Your task to perform on an android device: Set the phone to "Do not disturb". Image 0: 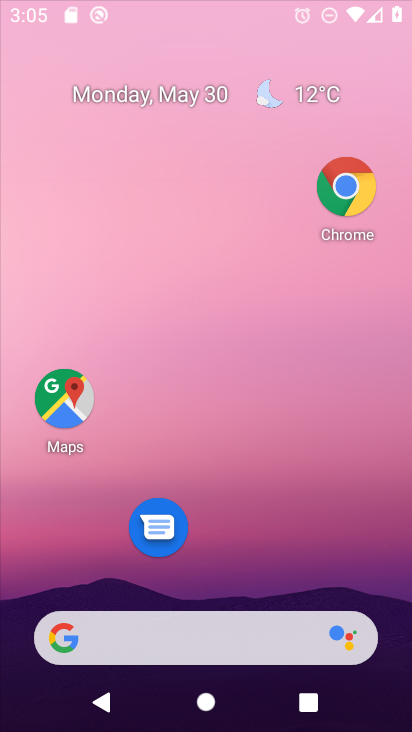
Step 0: drag from (230, 231) to (259, 35)
Your task to perform on an android device: Set the phone to "Do not disturb". Image 1: 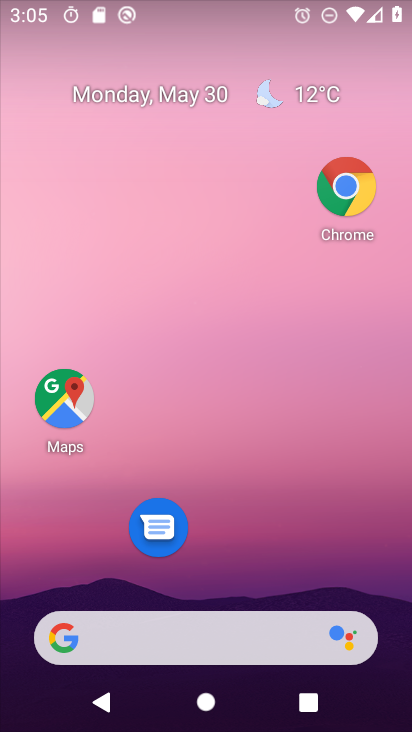
Step 1: drag from (245, 557) to (298, 104)
Your task to perform on an android device: Set the phone to "Do not disturb". Image 2: 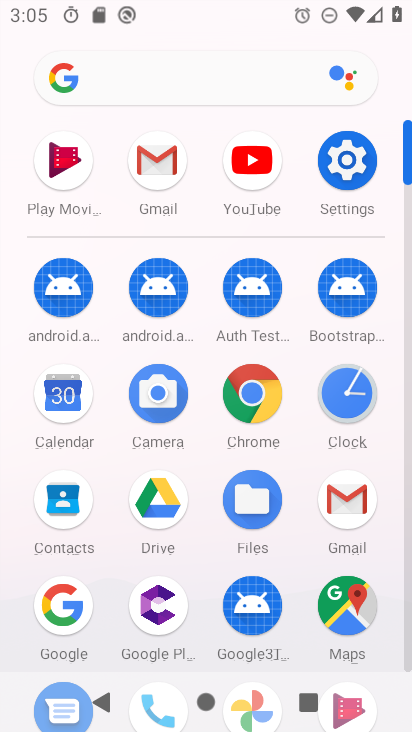
Step 2: click (338, 165)
Your task to perform on an android device: Set the phone to "Do not disturb". Image 3: 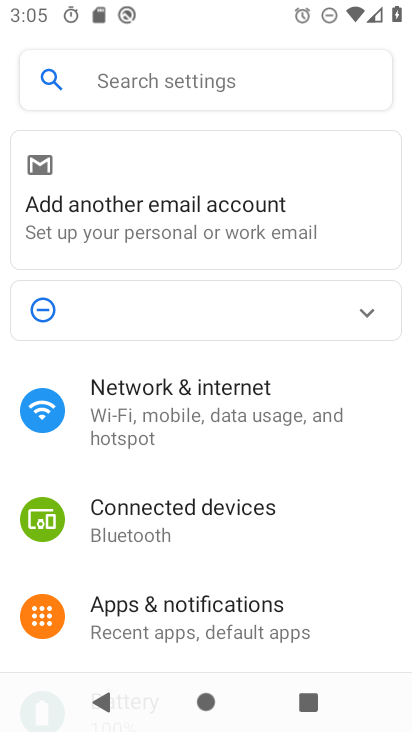
Step 3: drag from (239, 575) to (278, 186)
Your task to perform on an android device: Set the phone to "Do not disturb". Image 4: 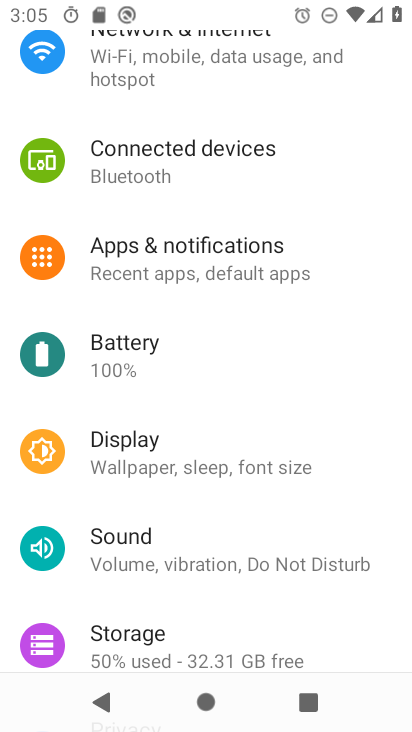
Step 4: drag from (249, 144) to (256, 390)
Your task to perform on an android device: Set the phone to "Do not disturb". Image 5: 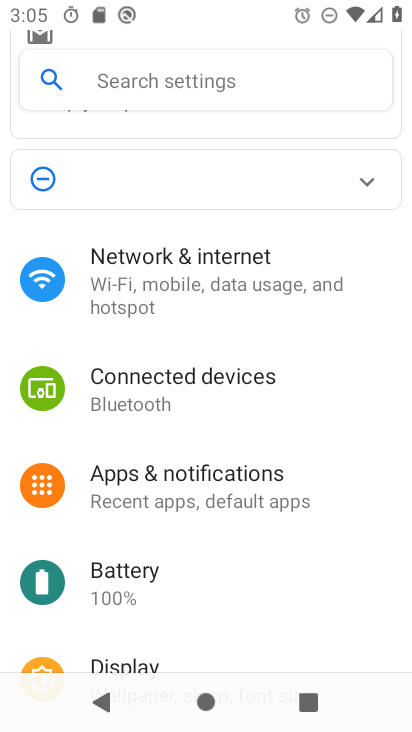
Step 5: click (181, 542)
Your task to perform on an android device: Set the phone to "Do not disturb". Image 6: 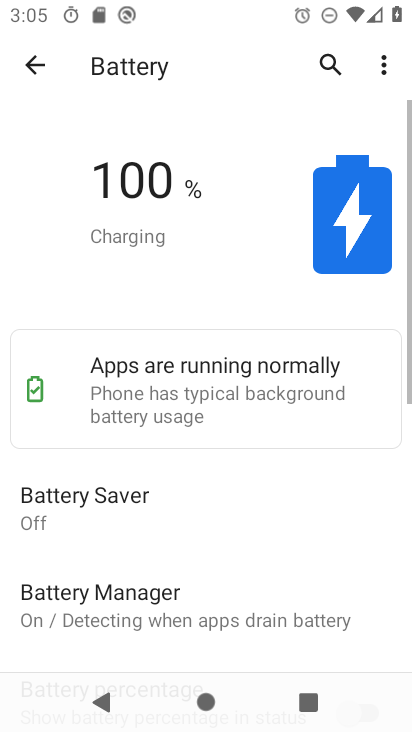
Step 6: drag from (235, 566) to (306, 86)
Your task to perform on an android device: Set the phone to "Do not disturb". Image 7: 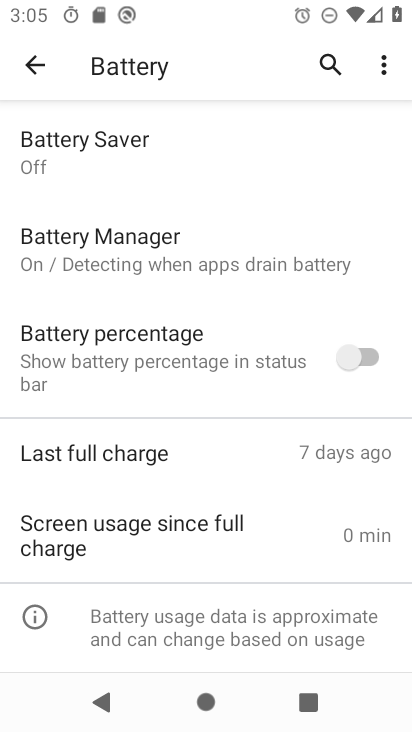
Step 7: click (43, 70)
Your task to perform on an android device: Set the phone to "Do not disturb". Image 8: 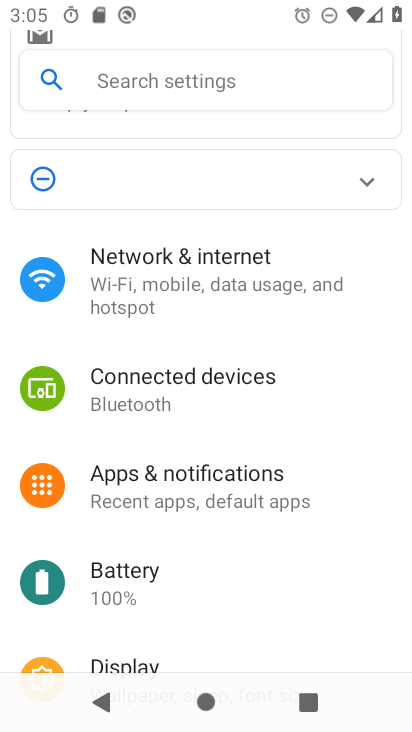
Step 8: click (160, 464)
Your task to perform on an android device: Set the phone to "Do not disturb". Image 9: 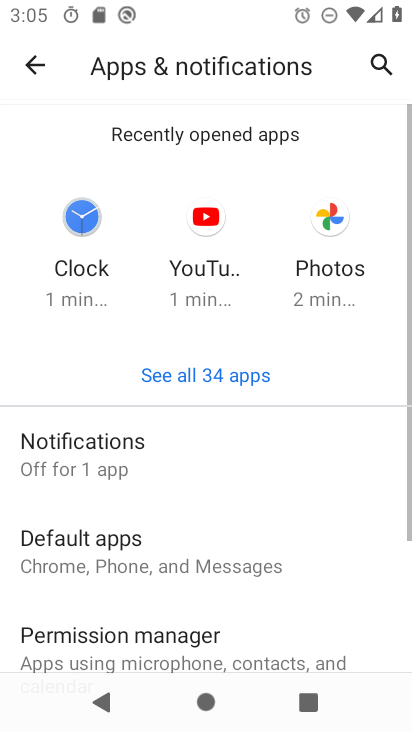
Step 9: click (165, 460)
Your task to perform on an android device: Set the phone to "Do not disturb". Image 10: 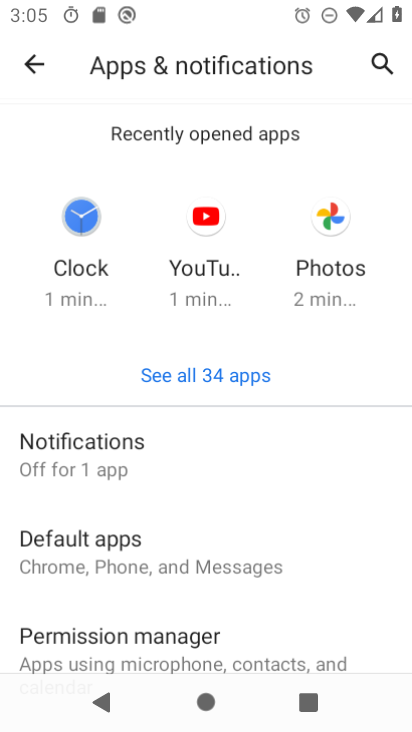
Step 10: drag from (224, 400) to (272, 32)
Your task to perform on an android device: Set the phone to "Do not disturb". Image 11: 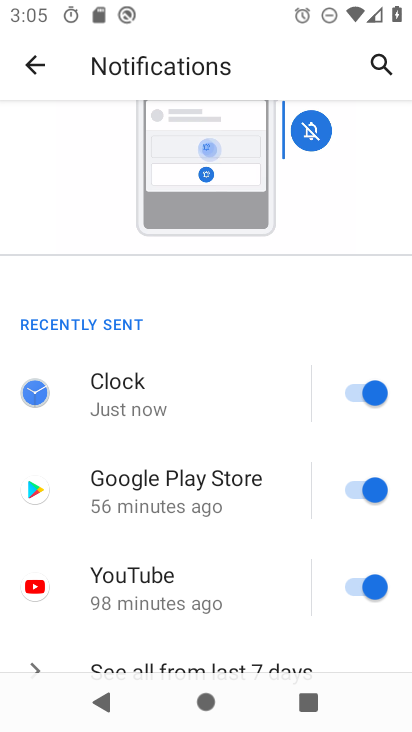
Step 11: drag from (206, 473) to (261, 79)
Your task to perform on an android device: Set the phone to "Do not disturb". Image 12: 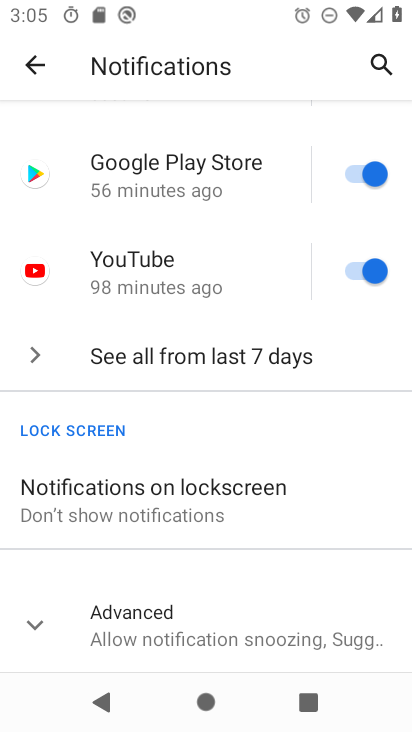
Step 12: click (219, 504)
Your task to perform on an android device: Set the phone to "Do not disturb". Image 13: 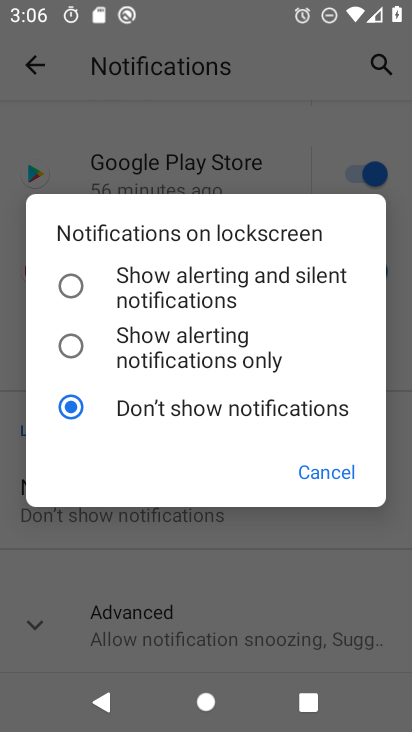
Step 13: click (322, 462)
Your task to perform on an android device: Set the phone to "Do not disturb". Image 14: 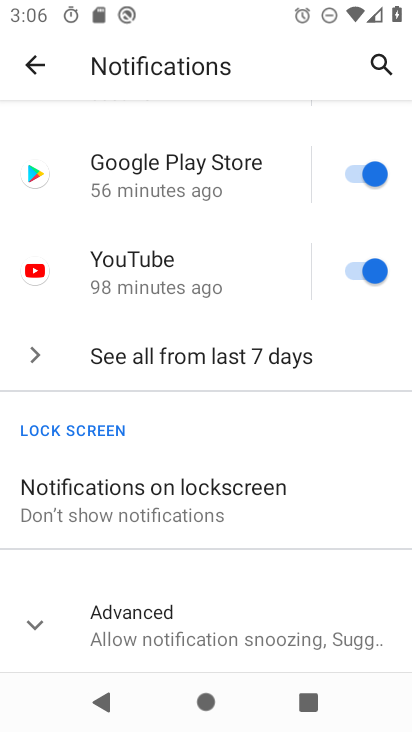
Step 14: click (215, 641)
Your task to perform on an android device: Set the phone to "Do not disturb". Image 15: 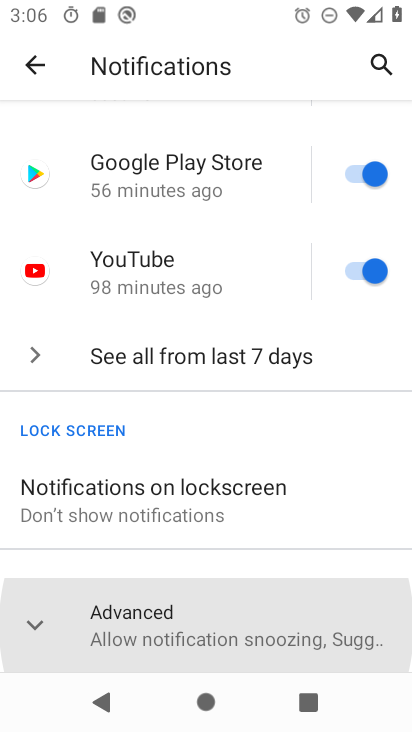
Step 15: drag from (211, 595) to (380, 29)
Your task to perform on an android device: Set the phone to "Do not disturb". Image 16: 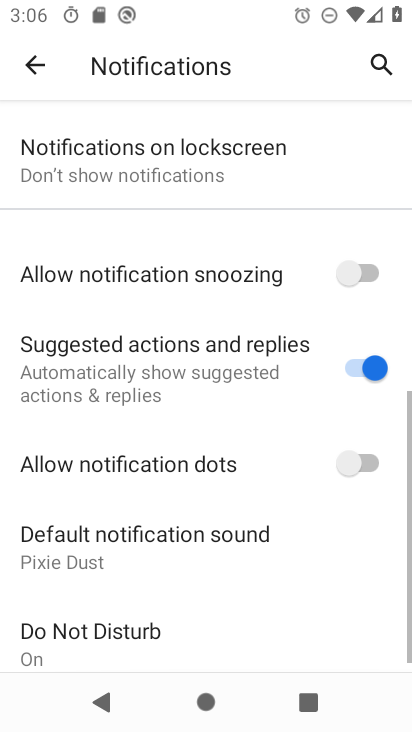
Step 16: click (144, 621)
Your task to perform on an android device: Set the phone to "Do not disturb". Image 17: 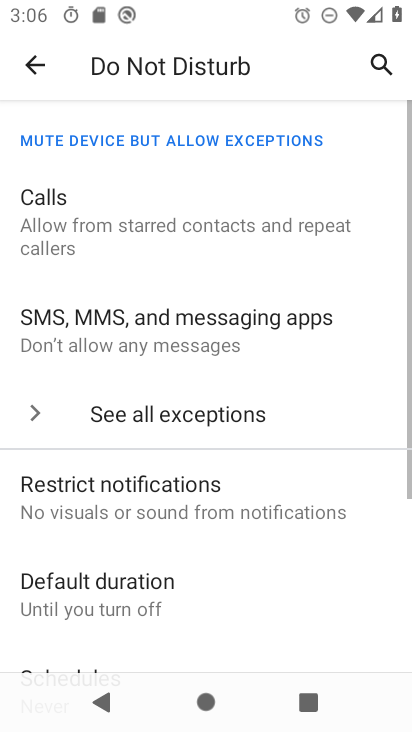
Step 17: task complete